Your task to perform on an android device: toggle airplane mode Image 0: 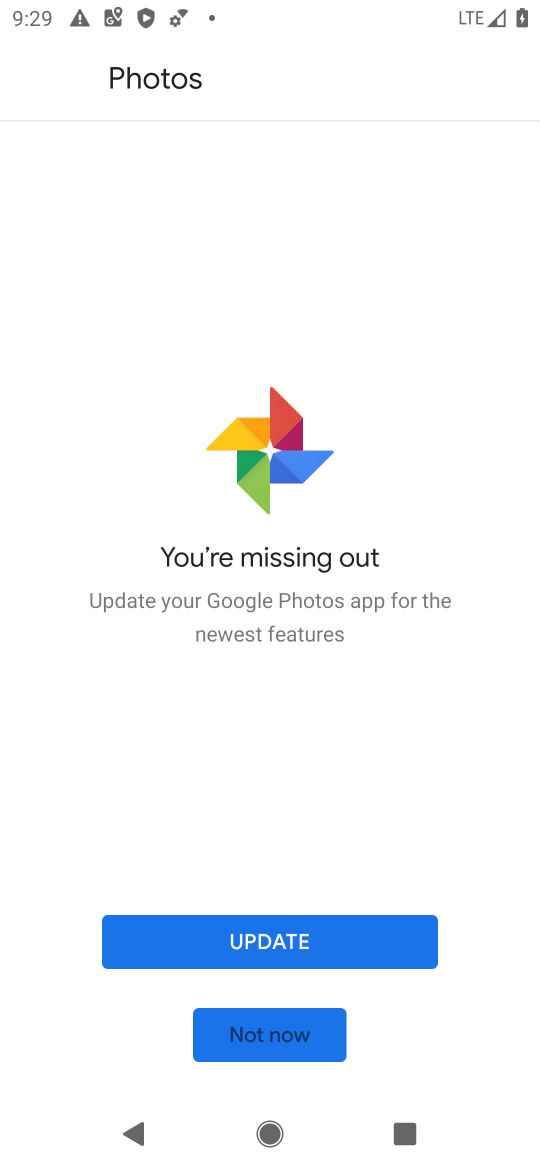
Step 0: press home button
Your task to perform on an android device: toggle airplane mode Image 1: 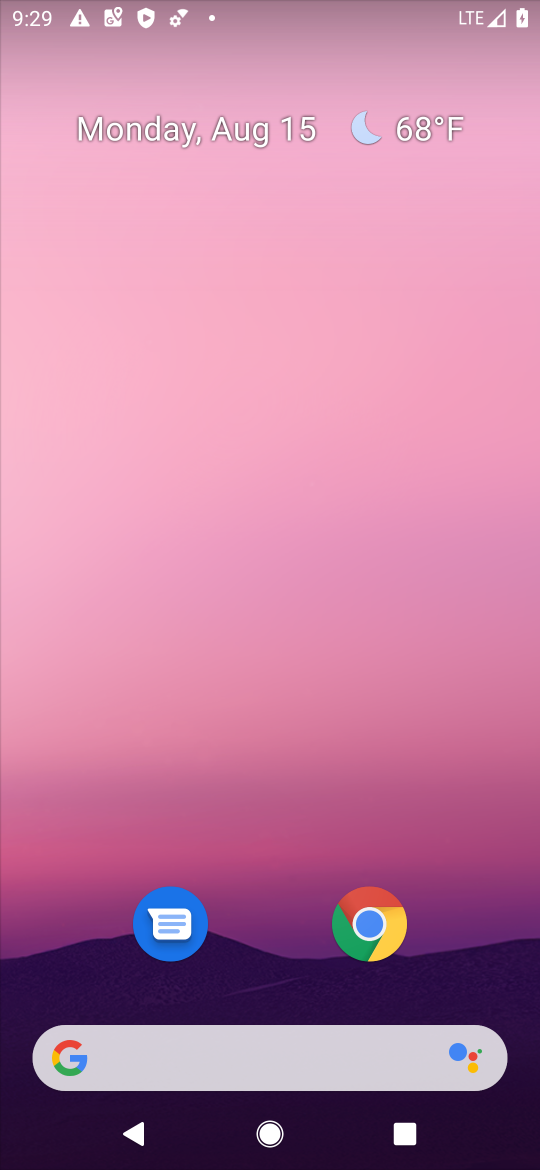
Step 1: drag from (484, 996) to (478, 117)
Your task to perform on an android device: toggle airplane mode Image 2: 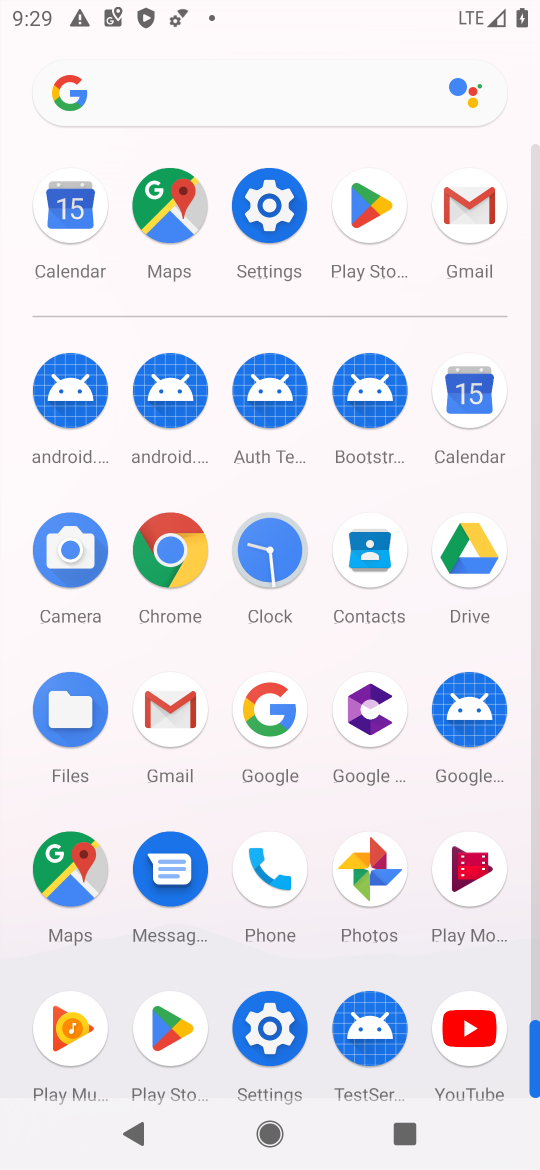
Step 2: click (271, 1028)
Your task to perform on an android device: toggle airplane mode Image 3: 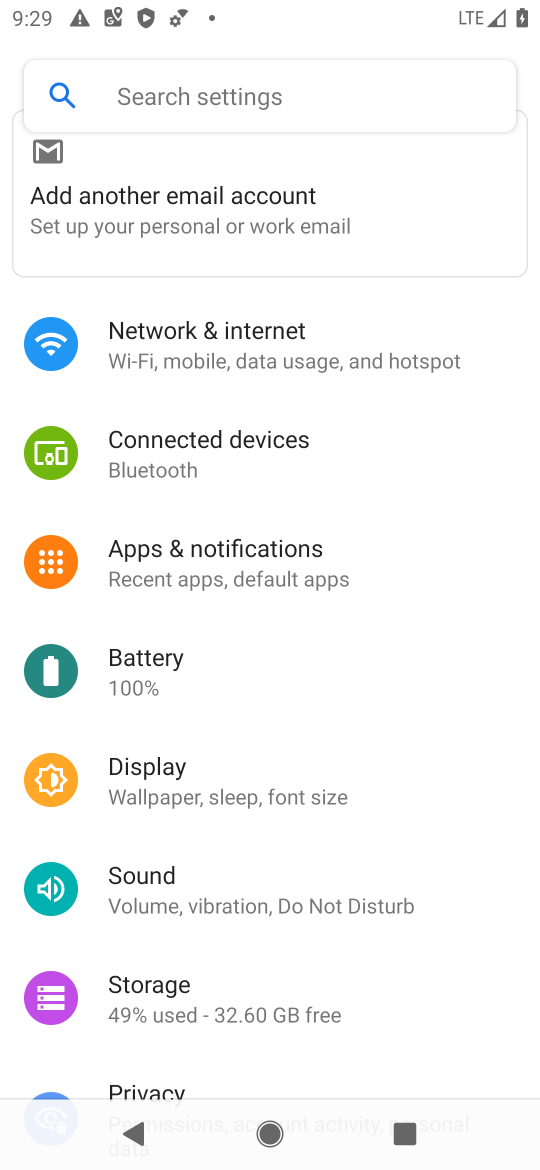
Step 3: click (230, 333)
Your task to perform on an android device: toggle airplane mode Image 4: 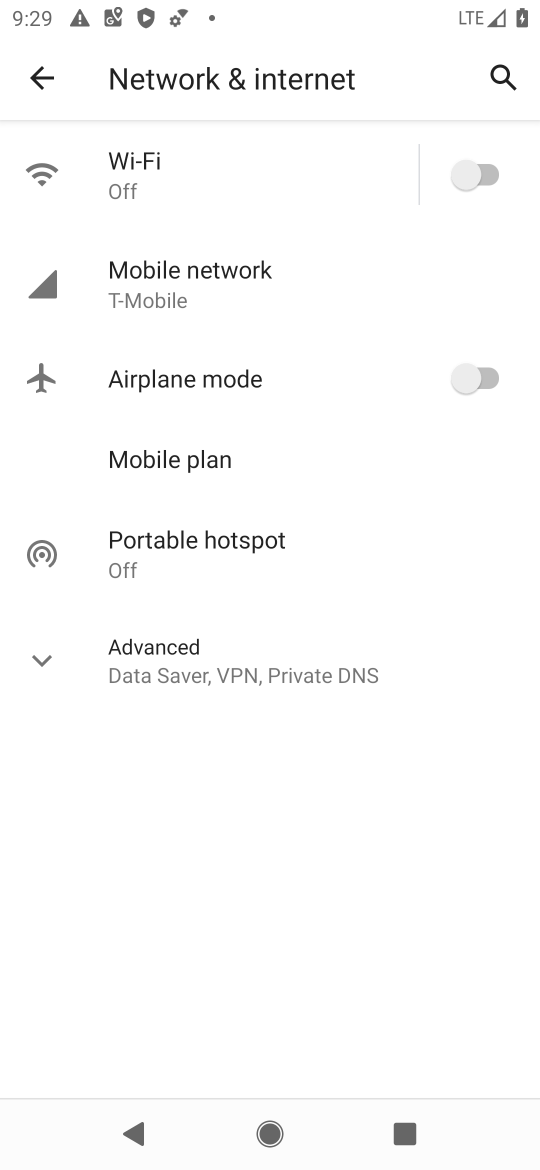
Step 4: click (493, 376)
Your task to perform on an android device: toggle airplane mode Image 5: 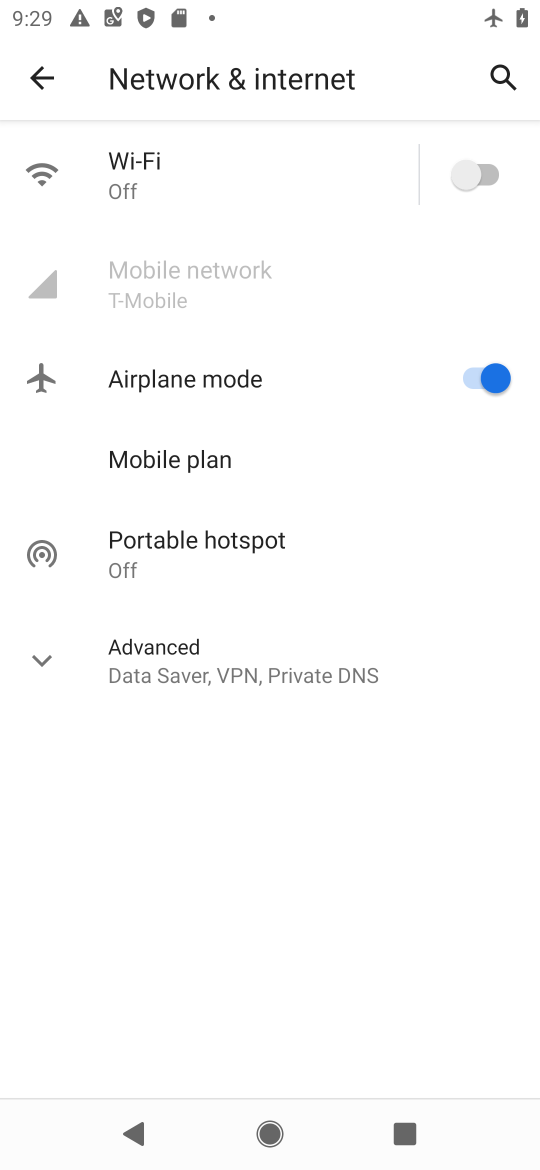
Step 5: task complete